Your task to perform on an android device: turn on showing notifications on the lock screen Image 0: 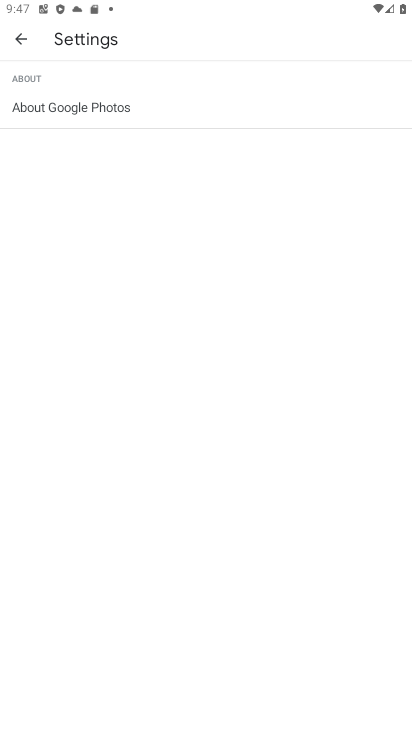
Step 0: press home button
Your task to perform on an android device: turn on showing notifications on the lock screen Image 1: 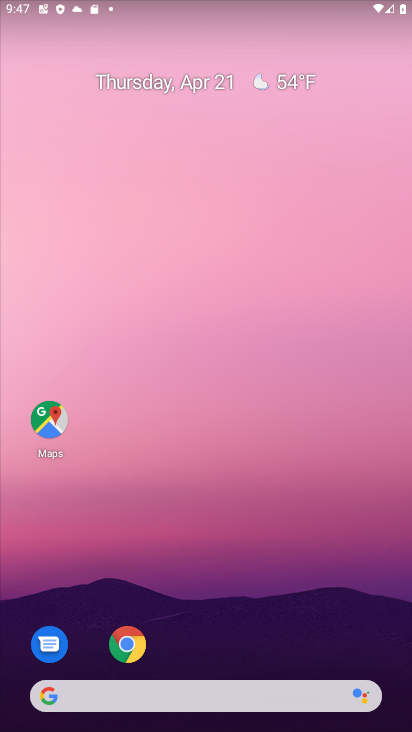
Step 1: drag from (166, 573) to (100, 72)
Your task to perform on an android device: turn on showing notifications on the lock screen Image 2: 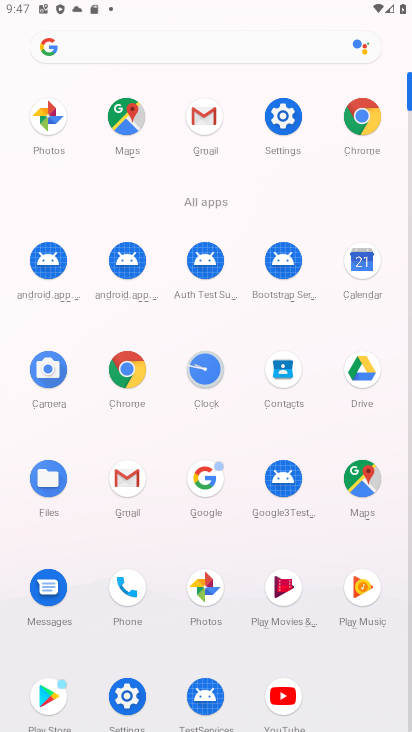
Step 2: click (279, 123)
Your task to perform on an android device: turn on showing notifications on the lock screen Image 3: 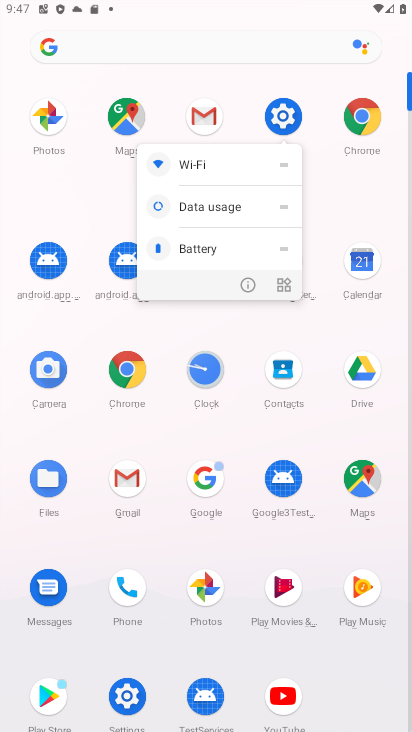
Step 3: click (279, 123)
Your task to perform on an android device: turn on showing notifications on the lock screen Image 4: 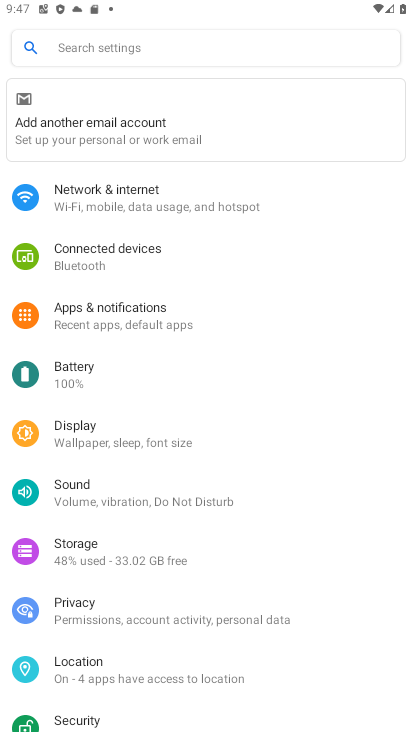
Step 4: click (98, 323)
Your task to perform on an android device: turn on showing notifications on the lock screen Image 5: 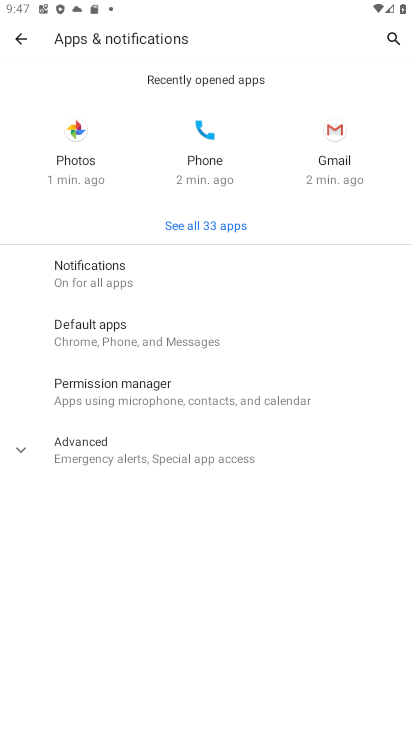
Step 5: click (96, 275)
Your task to perform on an android device: turn on showing notifications on the lock screen Image 6: 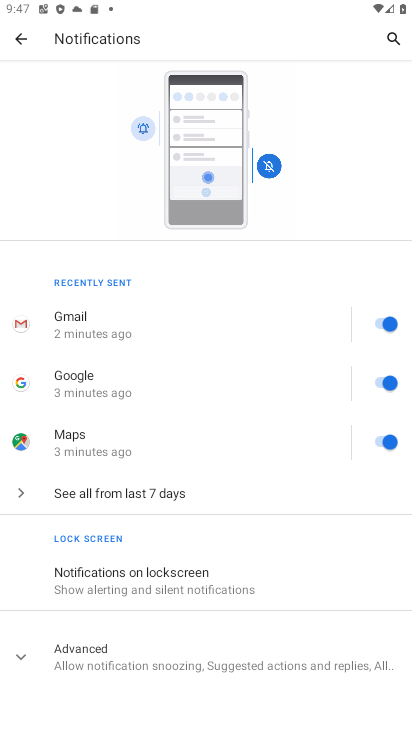
Step 6: click (128, 579)
Your task to perform on an android device: turn on showing notifications on the lock screen Image 7: 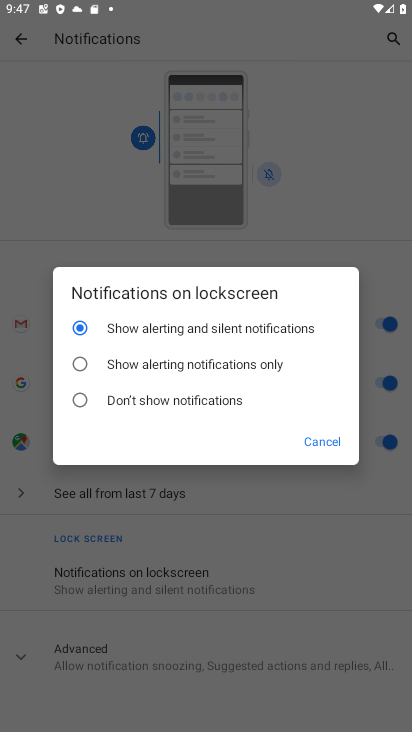
Step 7: task complete